Your task to perform on an android device: add a contact in the contacts app Image 0: 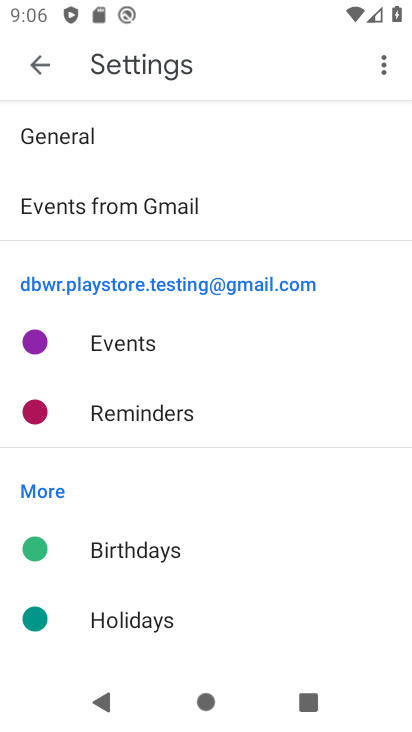
Step 0: press home button
Your task to perform on an android device: add a contact in the contacts app Image 1: 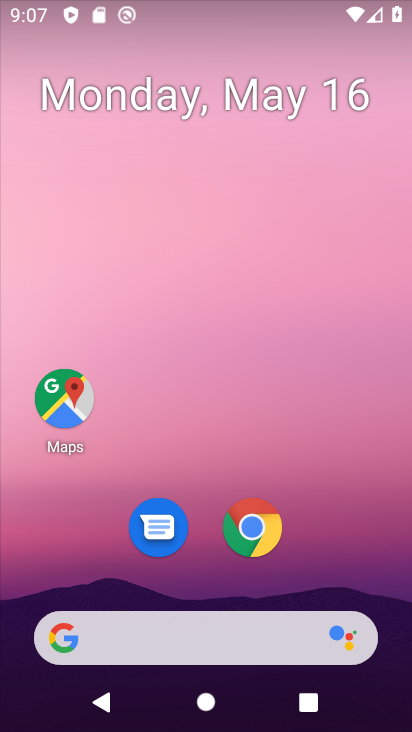
Step 1: drag from (359, 593) to (361, 35)
Your task to perform on an android device: add a contact in the contacts app Image 2: 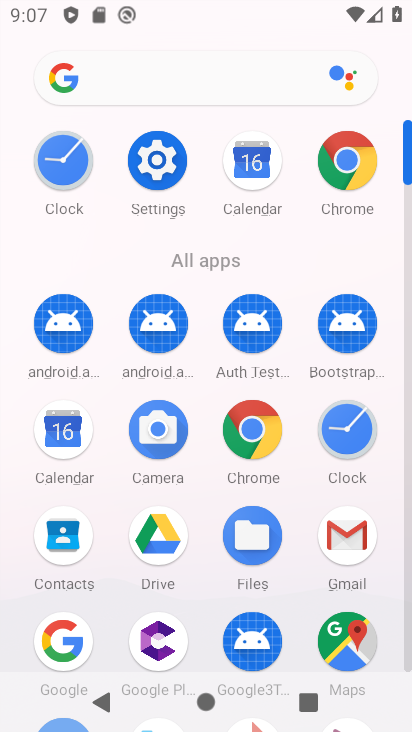
Step 2: click (67, 550)
Your task to perform on an android device: add a contact in the contacts app Image 3: 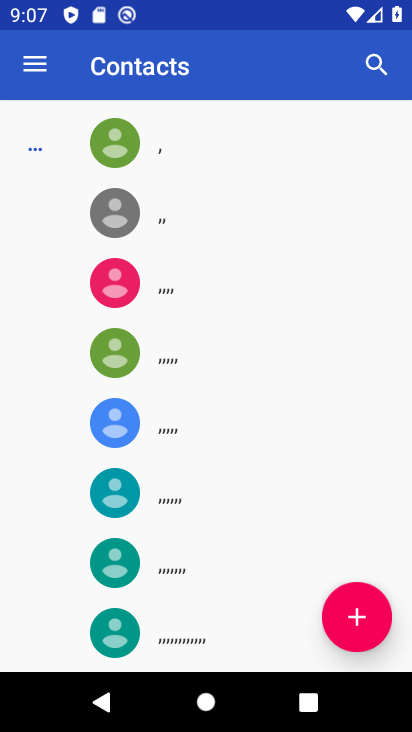
Step 3: click (361, 621)
Your task to perform on an android device: add a contact in the contacts app Image 4: 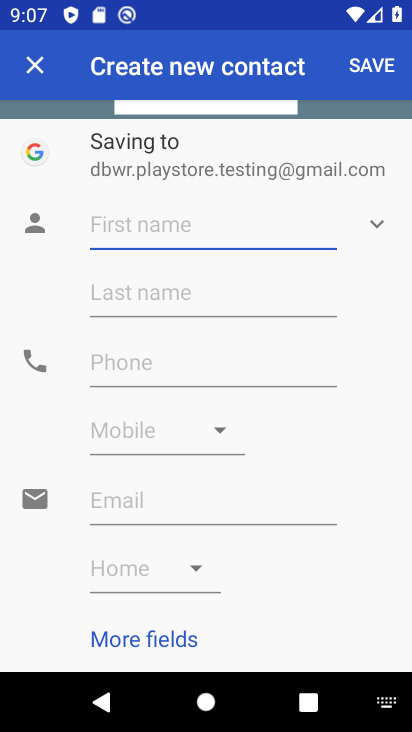
Step 4: click (112, 221)
Your task to perform on an android device: add a contact in the contacts app Image 5: 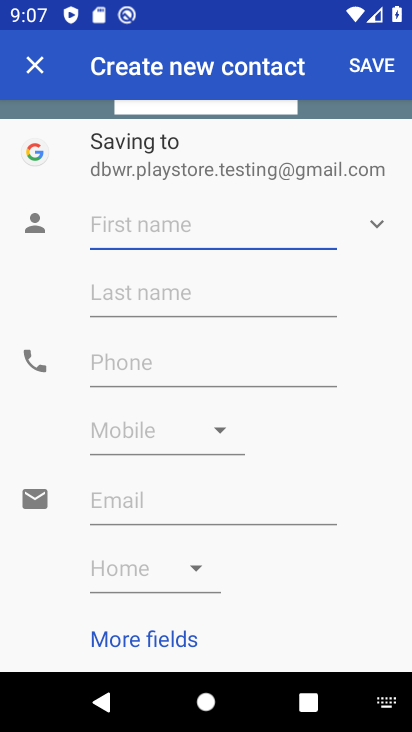
Step 5: type "leta"
Your task to perform on an android device: add a contact in the contacts app Image 6: 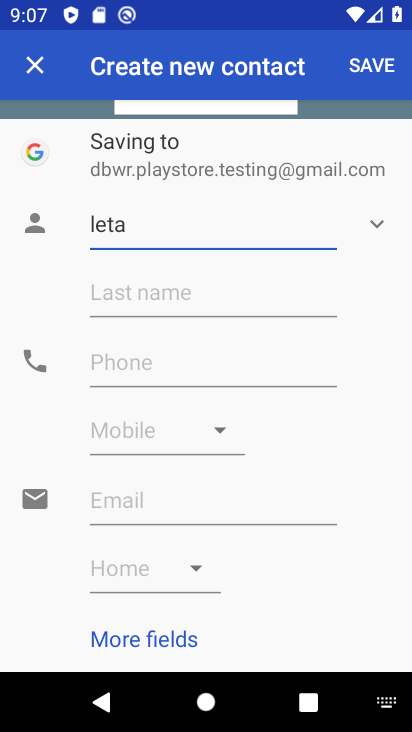
Step 6: click (128, 366)
Your task to perform on an android device: add a contact in the contacts app Image 7: 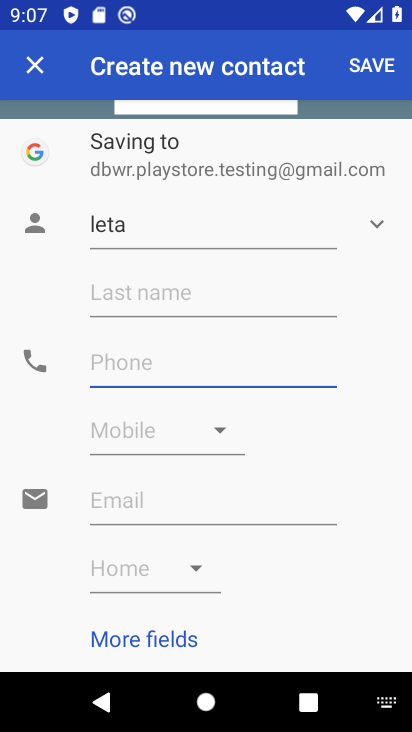
Step 7: type "98765433"
Your task to perform on an android device: add a contact in the contacts app Image 8: 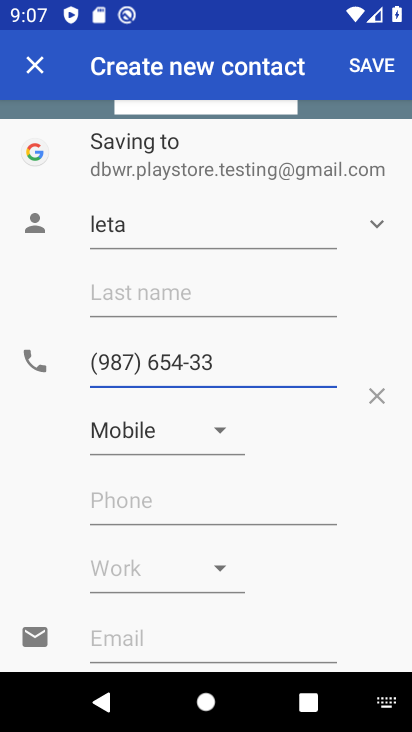
Step 8: click (368, 73)
Your task to perform on an android device: add a contact in the contacts app Image 9: 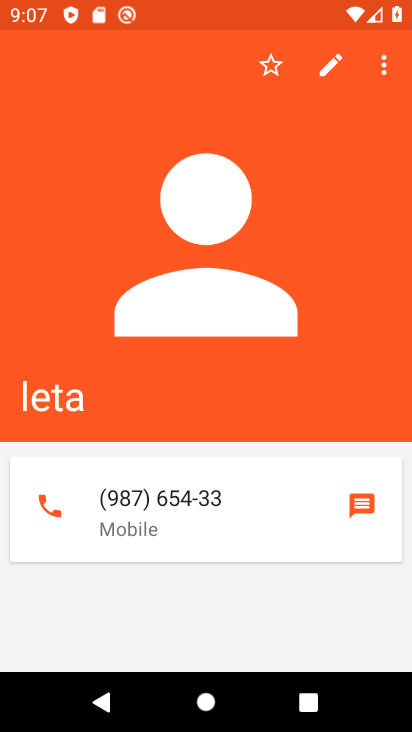
Step 9: task complete